Your task to perform on an android device: Open calendar and show me the first week of next month Image 0: 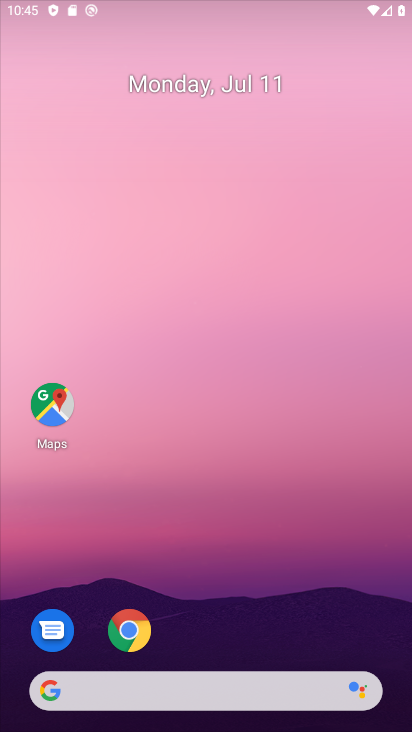
Step 0: drag from (235, 32) to (293, 1)
Your task to perform on an android device: Open calendar and show me the first week of next month Image 1: 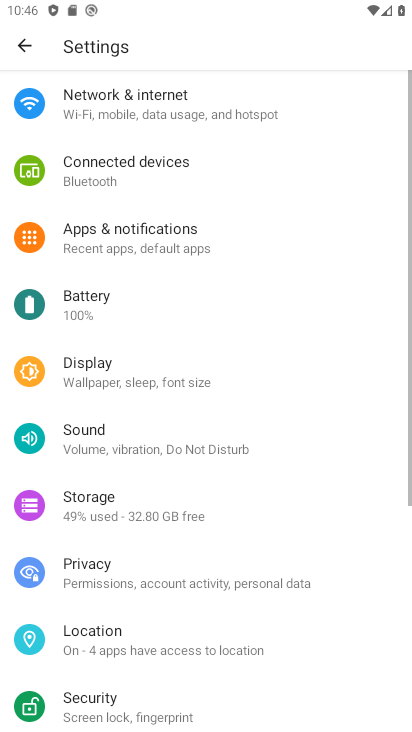
Step 1: press home button
Your task to perform on an android device: Open calendar and show me the first week of next month Image 2: 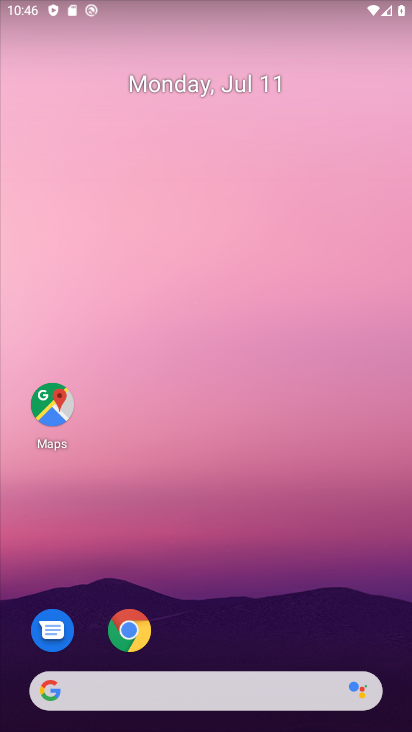
Step 2: drag from (240, 602) to (248, 21)
Your task to perform on an android device: Open calendar and show me the first week of next month Image 3: 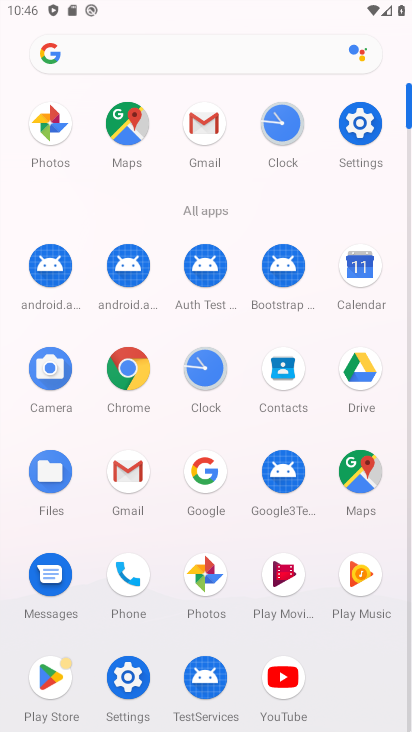
Step 3: click (364, 270)
Your task to perform on an android device: Open calendar and show me the first week of next month Image 4: 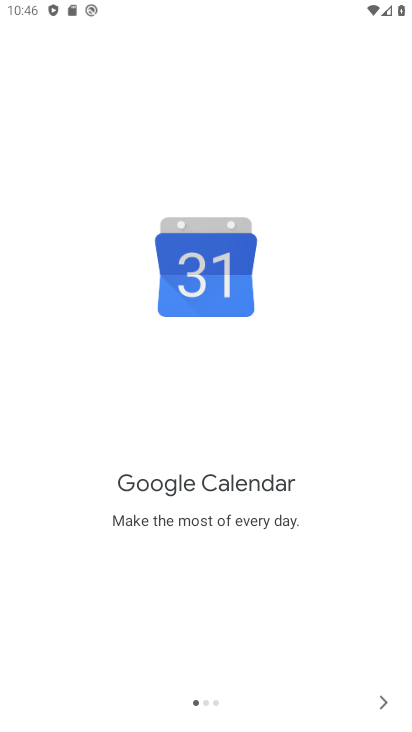
Step 4: click (386, 697)
Your task to perform on an android device: Open calendar and show me the first week of next month Image 5: 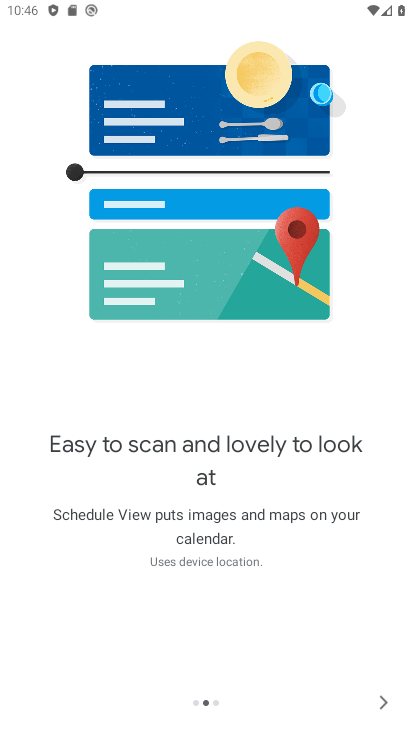
Step 5: click (384, 698)
Your task to perform on an android device: Open calendar and show me the first week of next month Image 6: 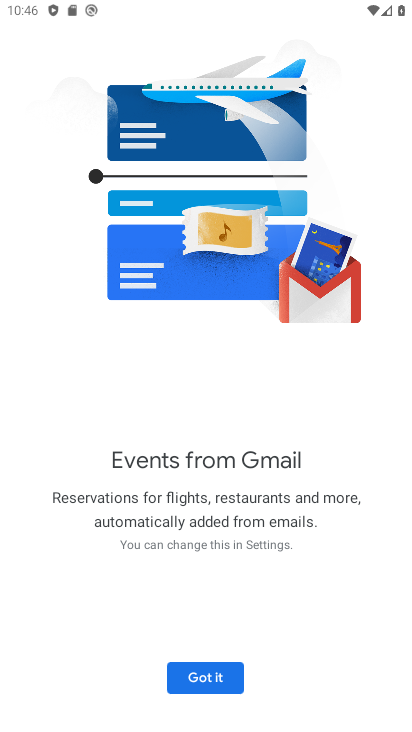
Step 6: click (201, 675)
Your task to perform on an android device: Open calendar and show me the first week of next month Image 7: 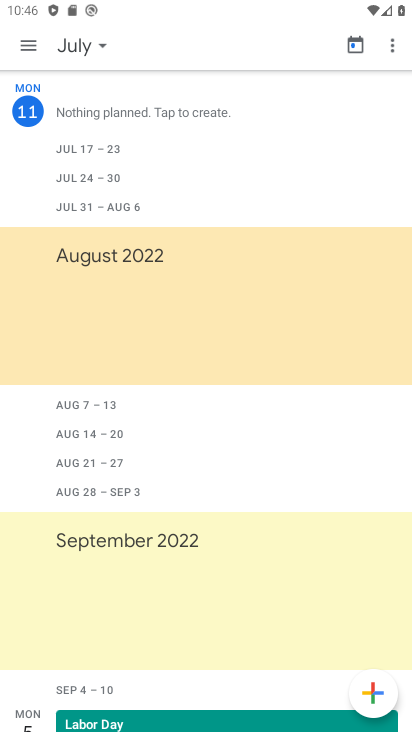
Step 7: click (23, 36)
Your task to perform on an android device: Open calendar and show me the first week of next month Image 8: 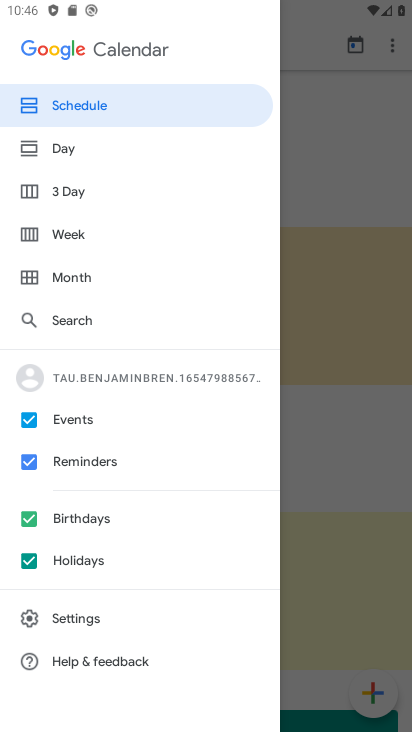
Step 8: click (64, 234)
Your task to perform on an android device: Open calendar and show me the first week of next month Image 9: 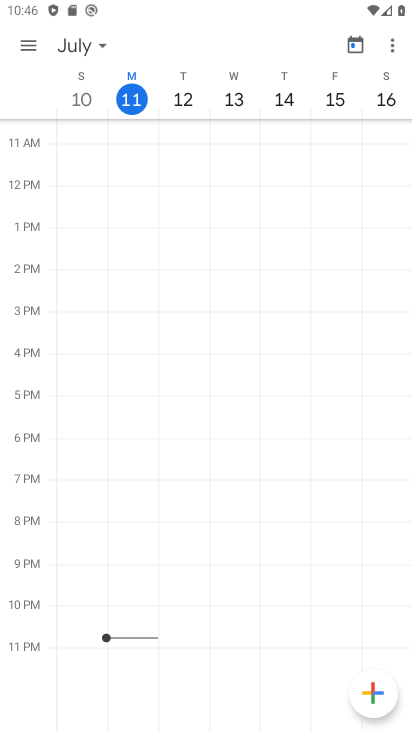
Step 9: task complete